Your task to perform on an android device: turn off location history Image 0: 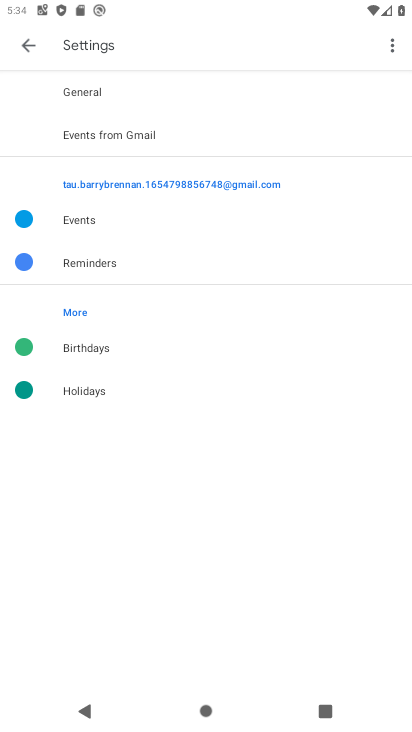
Step 0: drag from (237, 611) to (311, 73)
Your task to perform on an android device: turn off location history Image 1: 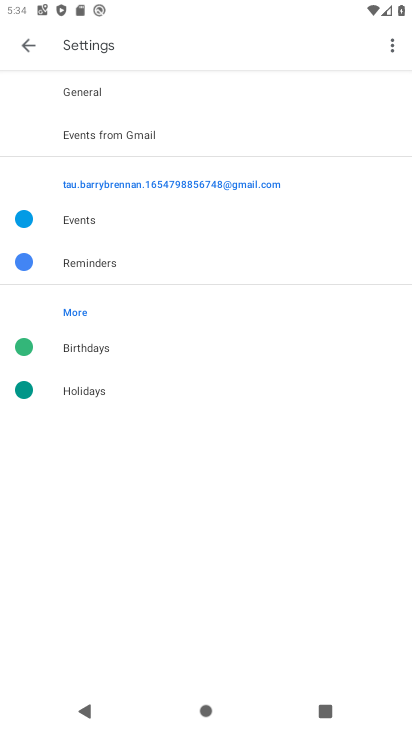
Step 1: press back button
Your task to perform on an android device: turn off location history Image 2: 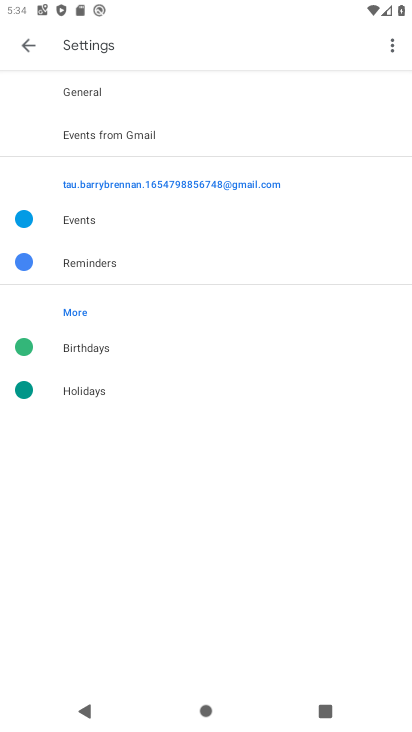
Step 2: press back button
Your task to perform on an android device: turn off location history Image 3: 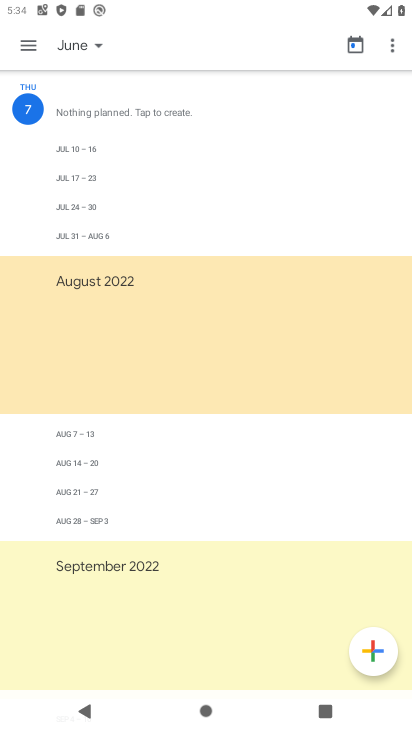
Step 3: press back button
Your task to perform on an android device: turn off location history Image 4: 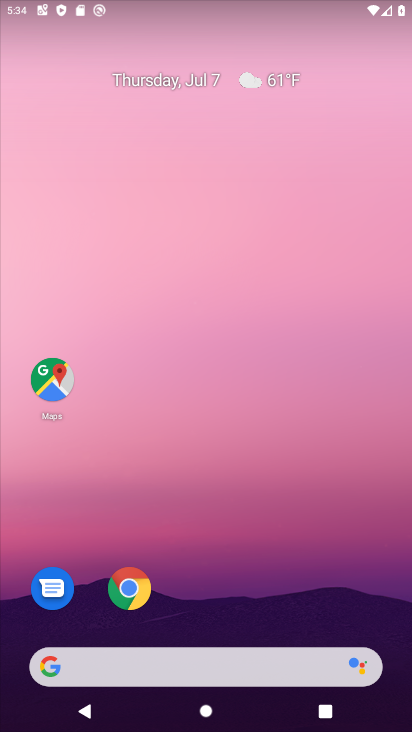
Step 4: drag from (220, 618) to (294, 21)
Your task to perform on an android device: turn off location history Image 5: 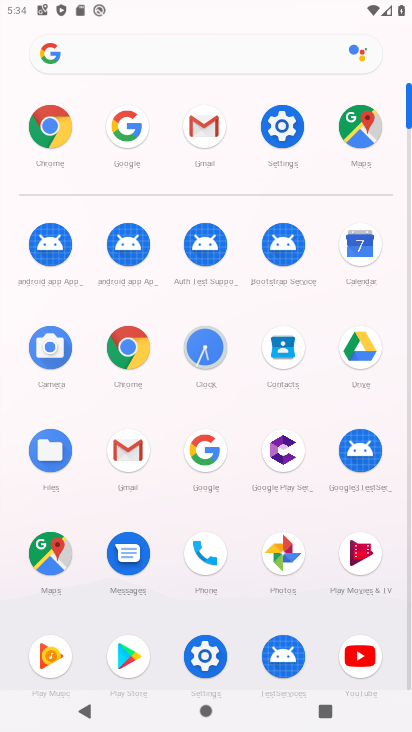
Step 5: click (278, 138)
Your task to perform on an android device: turn off location history Image 6: 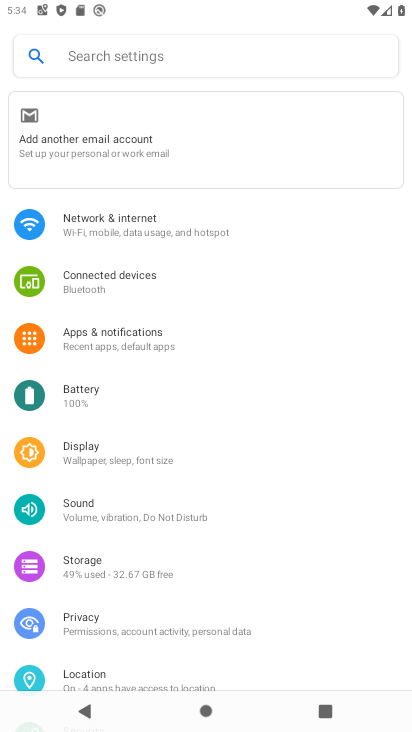
Step 6: click (83, 675)
Your task to perform on an android device: turn off location history Image 7: 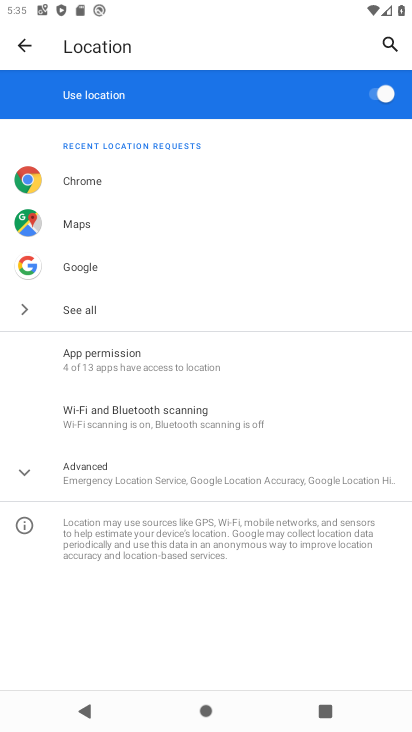
Step 7: click (151, 478)
Your task to perform on an android device: turn off location history Image 8: 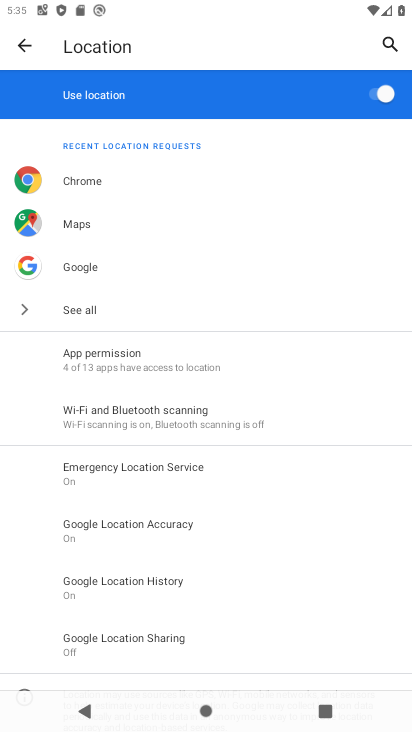
Step 8: click (149, 586)
Your task to perform on an android device: turn off location history Image 9: 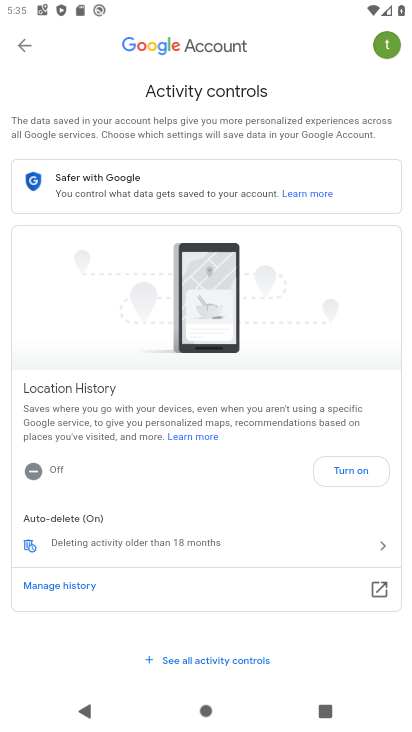
Step 9: task complete